Your task to perform on an android device: toggle location history Image 0: 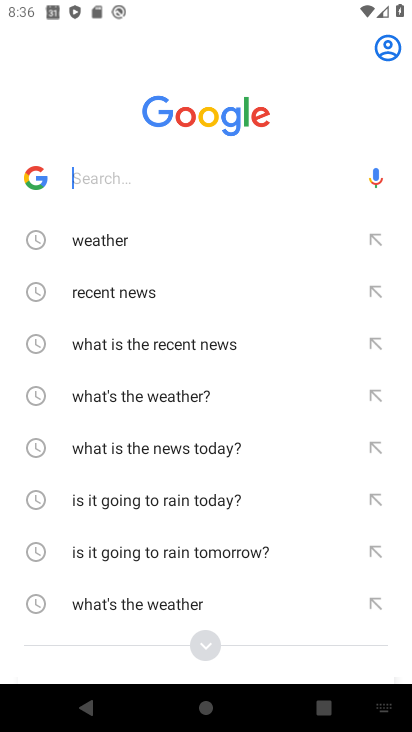
Step 0: press home button
Your task to perform on an android device: toggle location history Image 1: 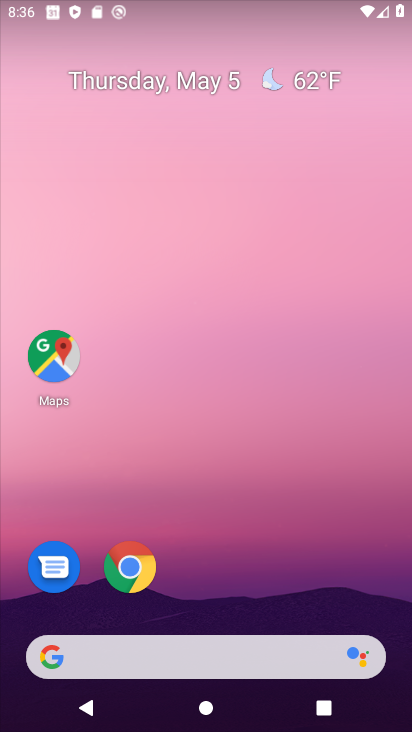
Step 1: drag from (227, 589) to (211, 204)
Your task to perform on an android device: toggle location history Image 2: 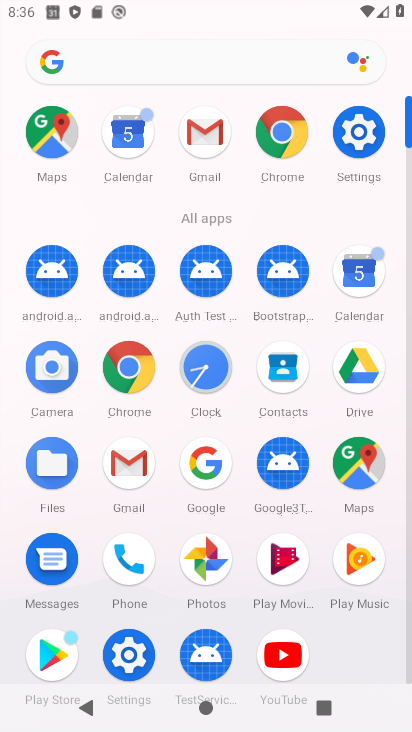
Step 2: click (363, 124)
Your task to perform on an android device: toggle location history Image 3: 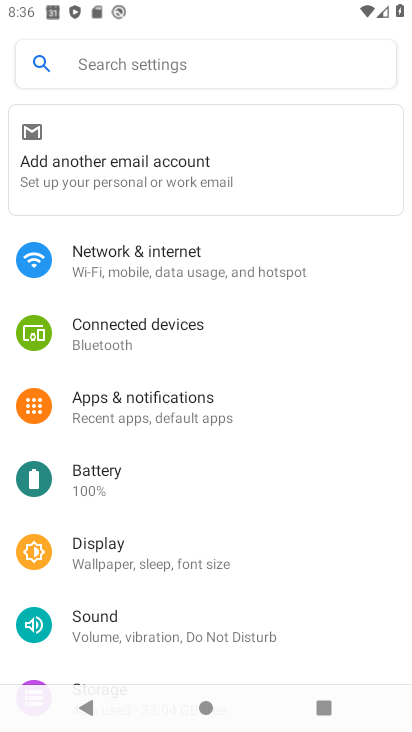
Step 3: drag from (238, 662) to (237, 294)
Your task to perform on an android device: toggle location history Image 4: 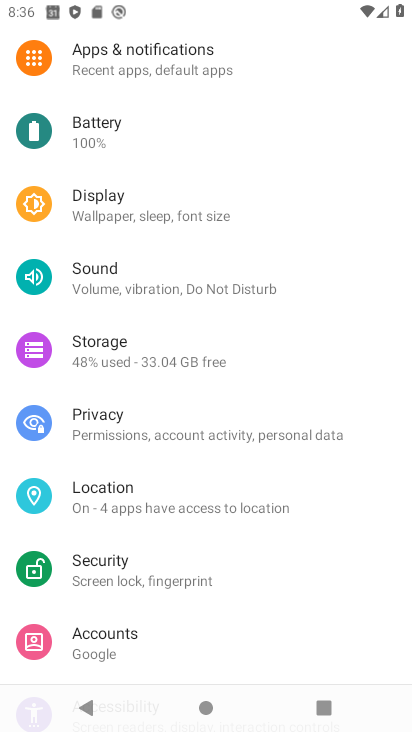
Step 4: click (94, 489)
Your task to perform on an android device: toggle location history Image 5: 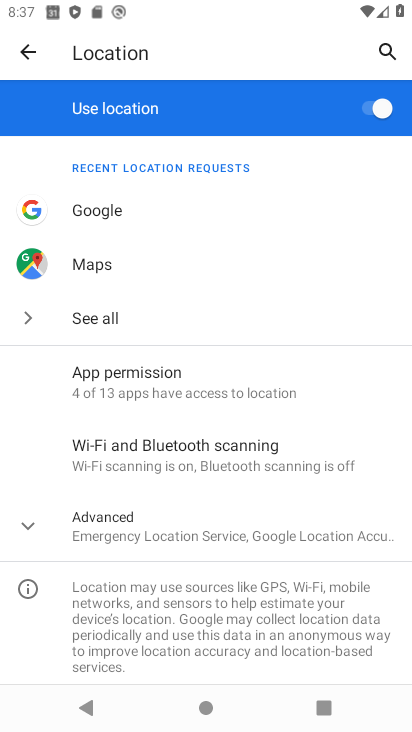
Step 5: click (129, 528)
Your task to perform on an android device: toggle location history Image 6: 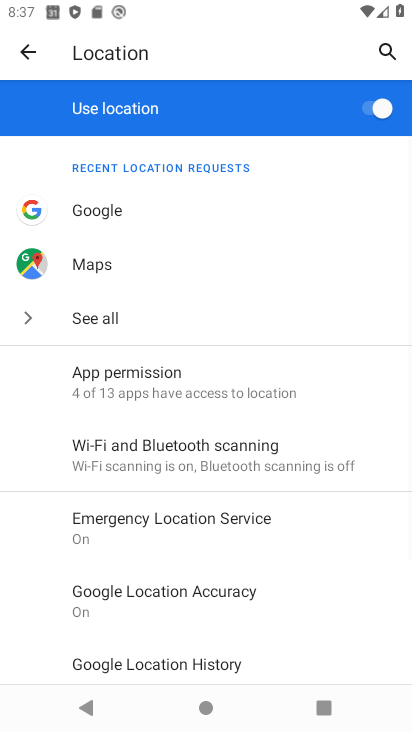
Step 6: drag from (266, 651) to (264, 406)
Your task to perform on an android device: toggle location history Image 7: 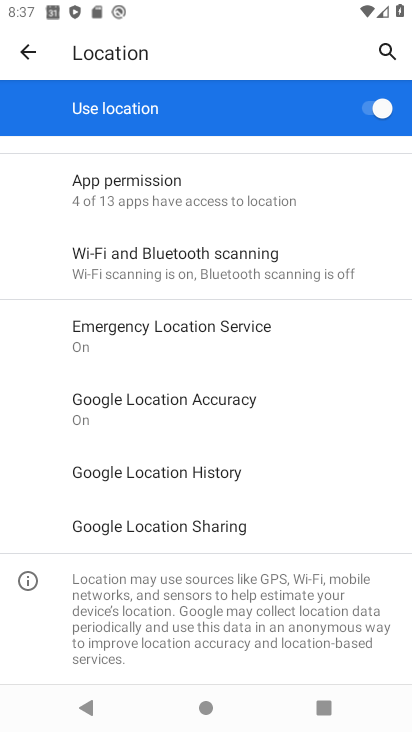
Step 7: click (204, 472)
Your task to perform on an android device: toggle location history Image 8: 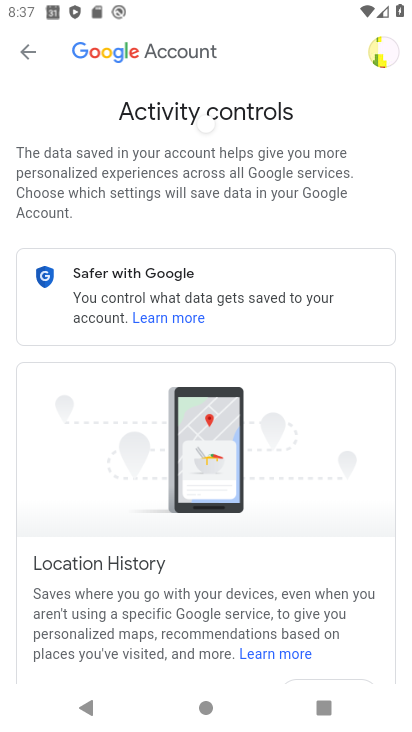
Step 8: drag from (198, 630) to (191, 333)
Your task to perform on an android device: toggle location history Image 9: 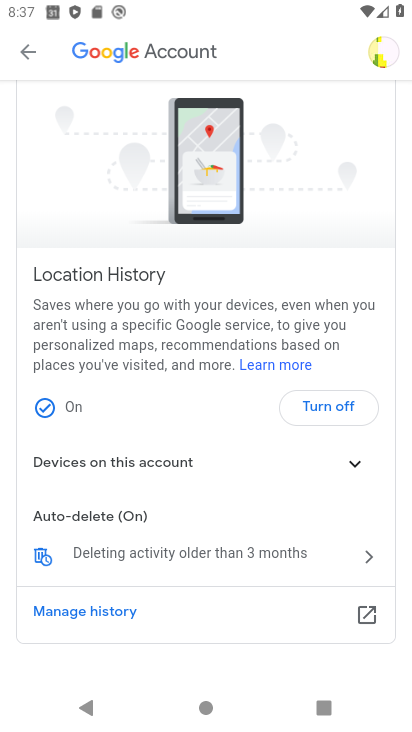
Step 9: click (319, 401)
Your task to perform on an android device: toggle location history Image 10: 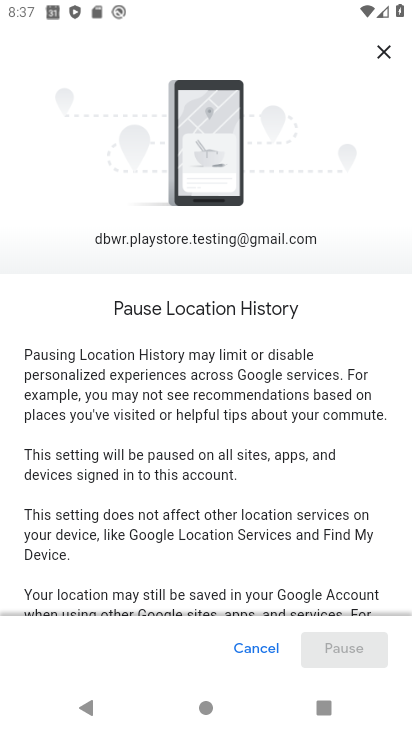
Step 10: drag from (257, 581) to (265, 283)
Your task to perform on an android device: toggle location history Image 11: 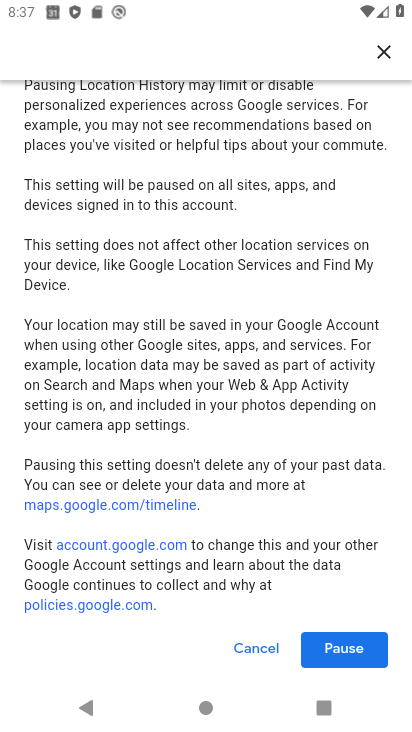
Step 11: click (353, 651)
Your task to perform on an android device: toggle location history Image 12: 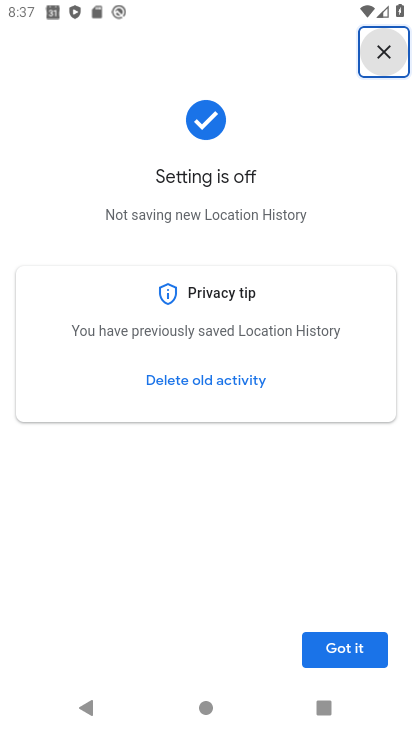
Step 12: click (339, 644)
Your task to perform on an android device: toggle location history Image 13: 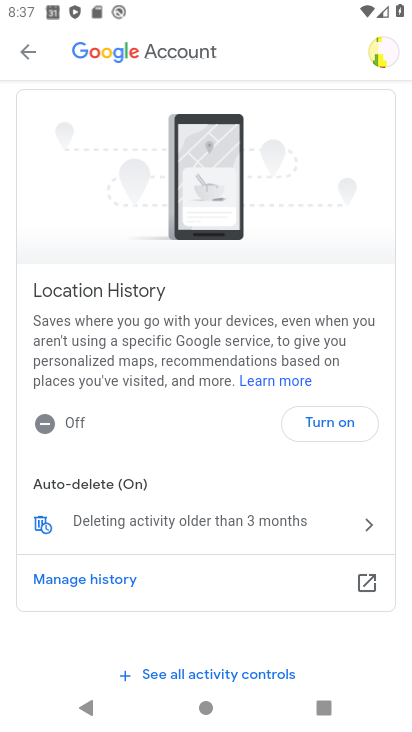
Step 13: task complete